Your task to perform on an android device: Go to Amazon Image 0: 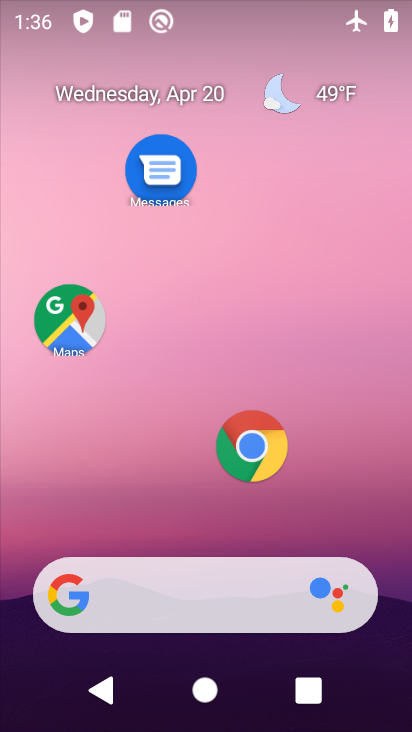
Step 0: click (254, 450)
Your task to perform on an android device: Go to Amazon Image 1: 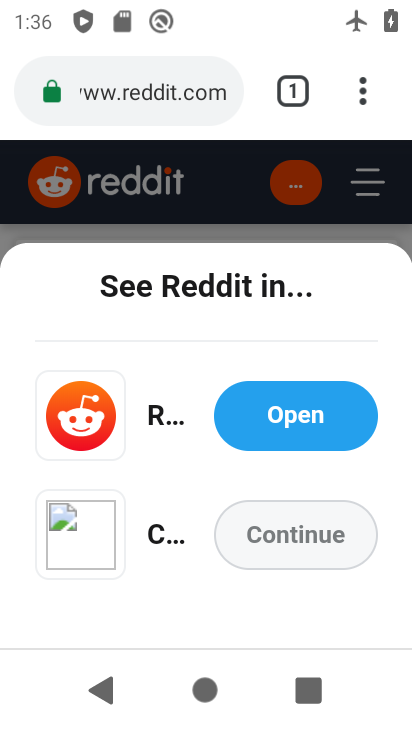
Step 1: click (279, 531)
Your task to perform on an android device: Go to Amazon Image 2: 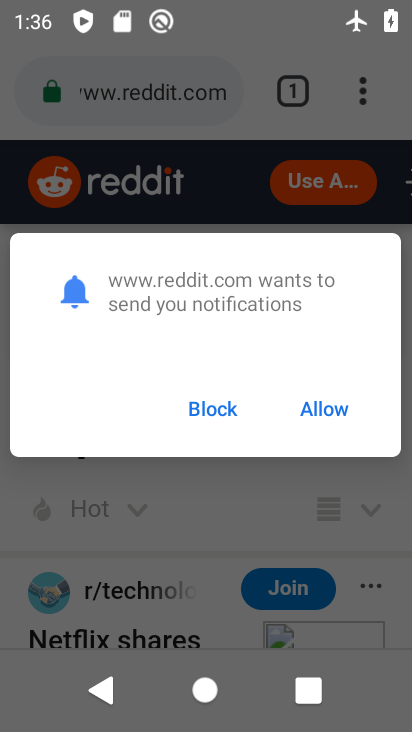
Step 2: click (221, 415)
Your task to perform on an android device: Go to Amazon Image 3: 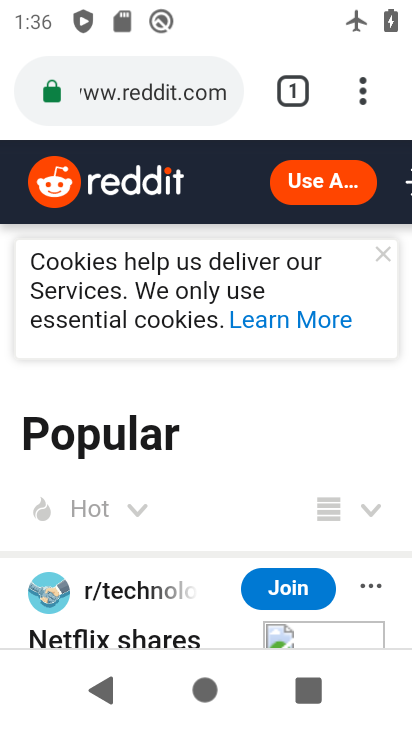
Step 3: click (286, 90)
Your task to perform on an android device: Go to Amazon Image 4: 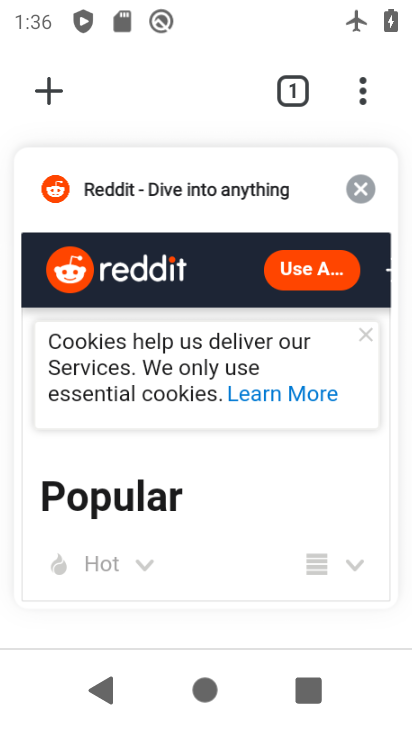
Step 4: click (51, 85)
Your task to perform on an android device: Go to Amazon Image 5: 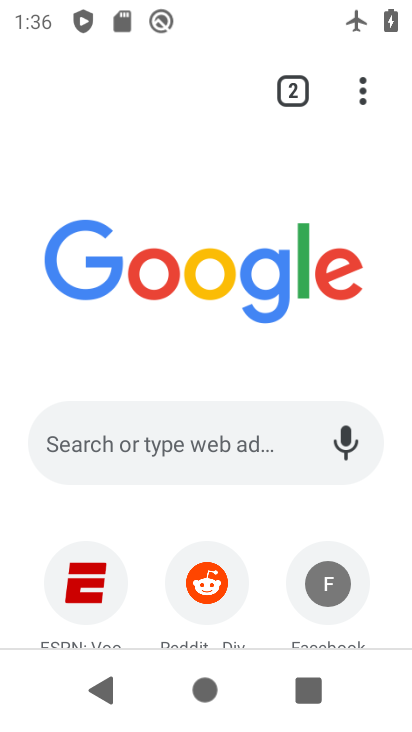
Step 5: drag from (250, 510) to (250, 205)
Your task to perform on an android device: Go to Amazon Image 6: 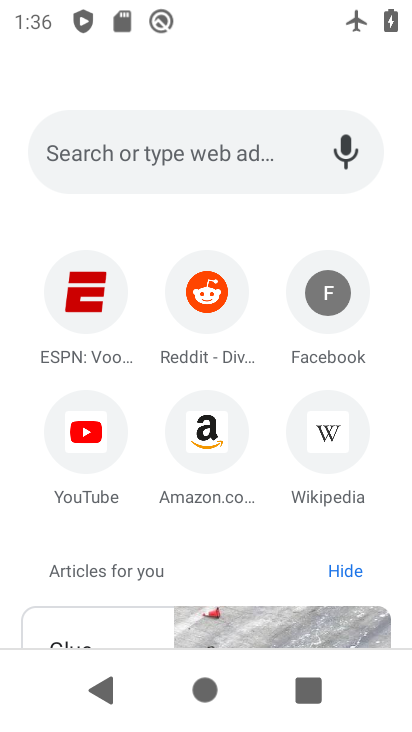
Step 6: click (215, 427)
Your task to perform on an android device: Go to Amazon Image 7: 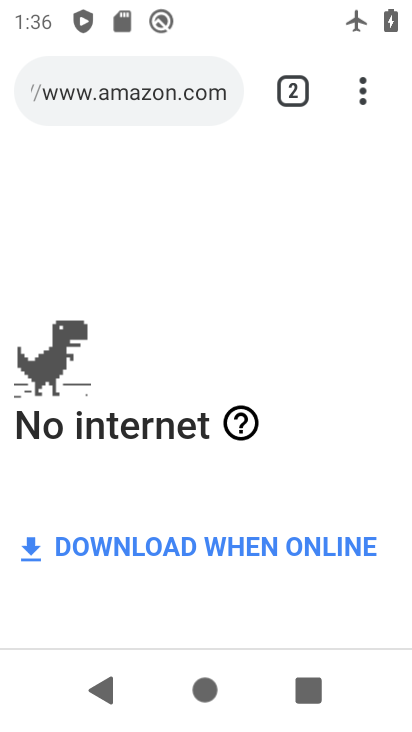
Step 7: task complete